Your task to perform on an android device: Open display settings Image 0: 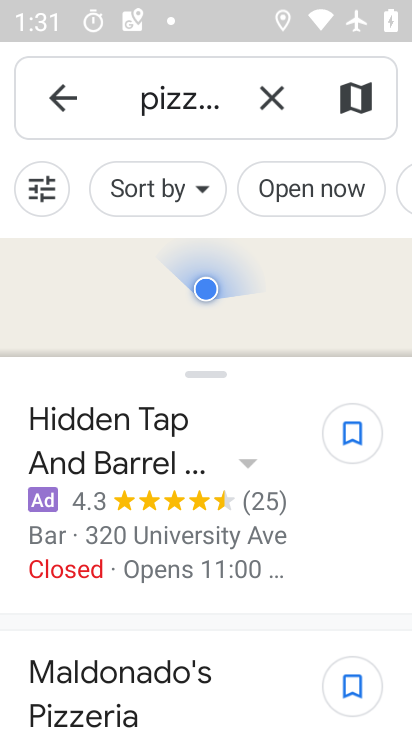
Step 0: press home button
Your task to perform on an android device: Open display settings Image 1: 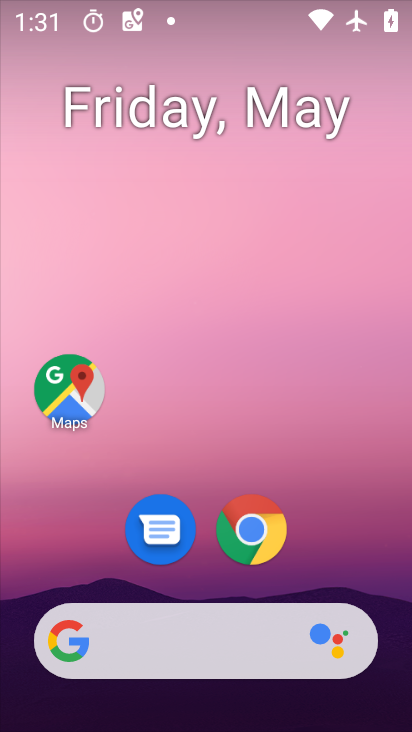
Step 1: drag from (277, 591) to (285, 29)
Your task to perform on an android device: Open display settings Image 2: 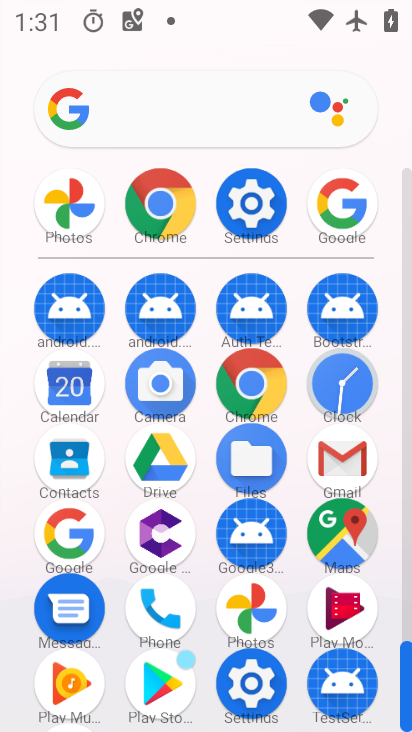
Step 2: click (246, 196)
Your task to perform on an android device: Open display settings Image 3: 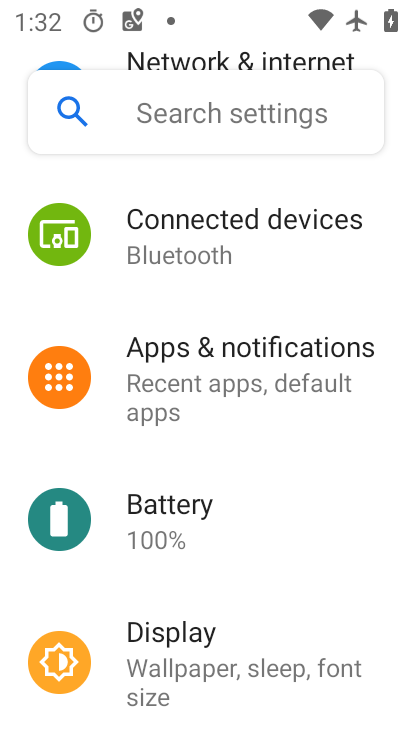
Step 3: click (197, 674)
Your task to perform on an android device: Open display settings Image 4: 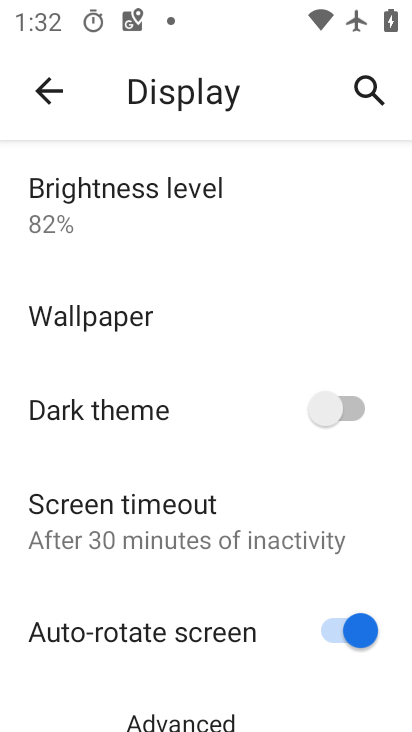
Step 4: task complete